Your task to perform on an android device: Go to Reddit.com Image 0: 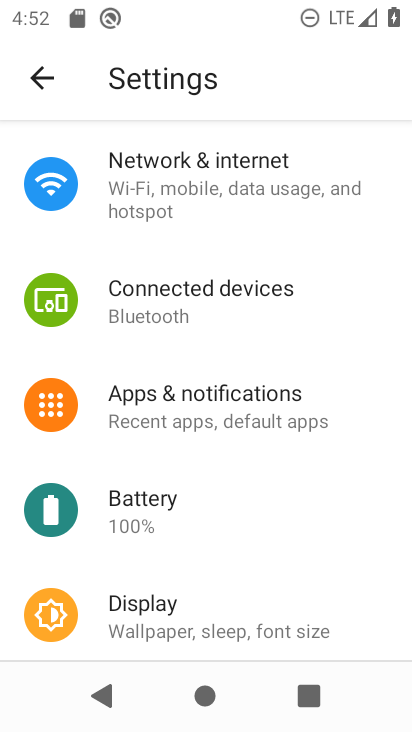
Step 0: press back button
Your task to perform on an android device: Go to Reddit.com Image 1: 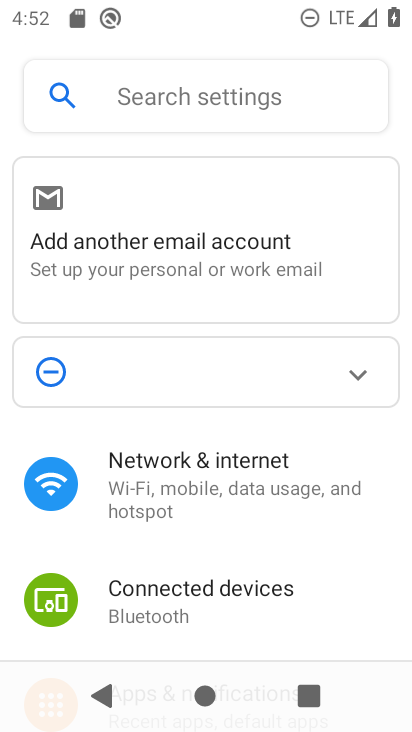
Step 1: press back button
Your task to perform on an android device: Go to Reddit.com Image 2: 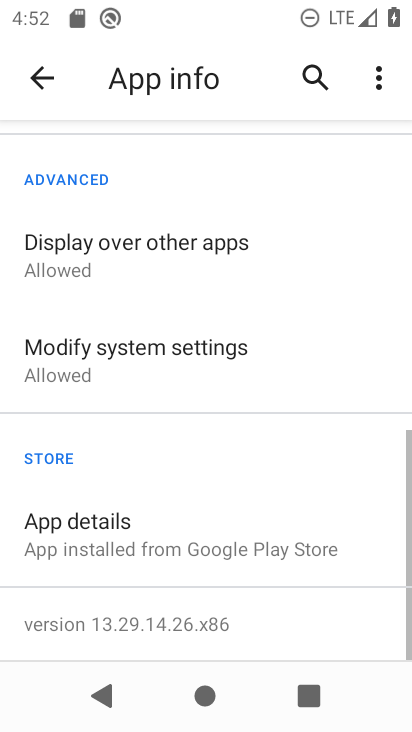
Step 2: press back button
Your task to perform on an android device: Go to Reddit.com Image 3: 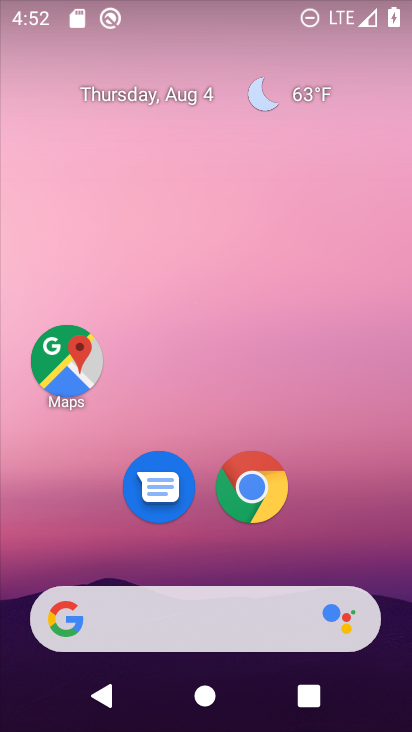
Step 3: click (267, 487)
Your task to perform on an android device: Go to Reddit.com Image 4: 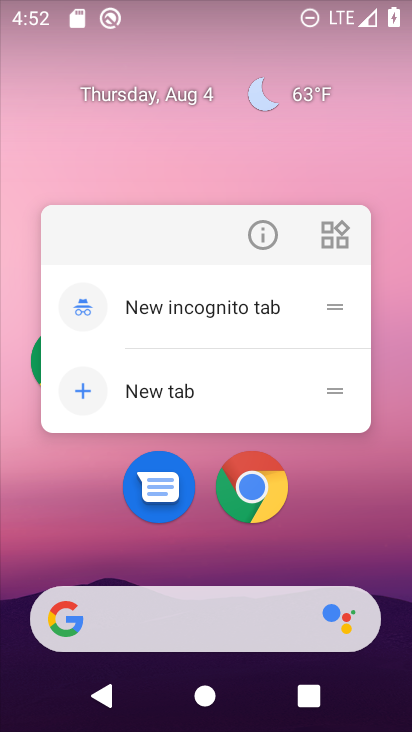
Step 4: click (255, 481)
Your task to perform on an android device: Go to Reddit.com Image 5: 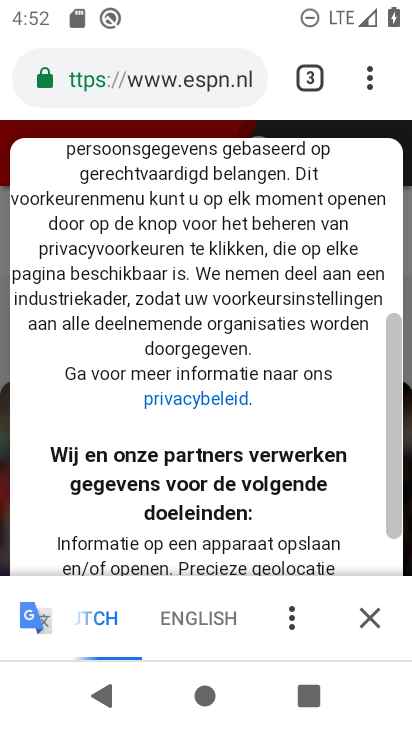
Step 5: click (311, 79)
Your task to perform on an android device: Go to Reddit.com Image 6: 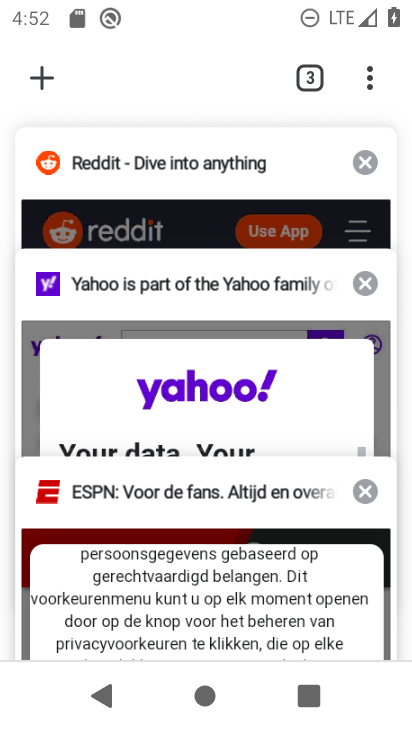
Step 6: click (108, 149)
Your task to perform on an android device: Go to Reddit.com Image 7: 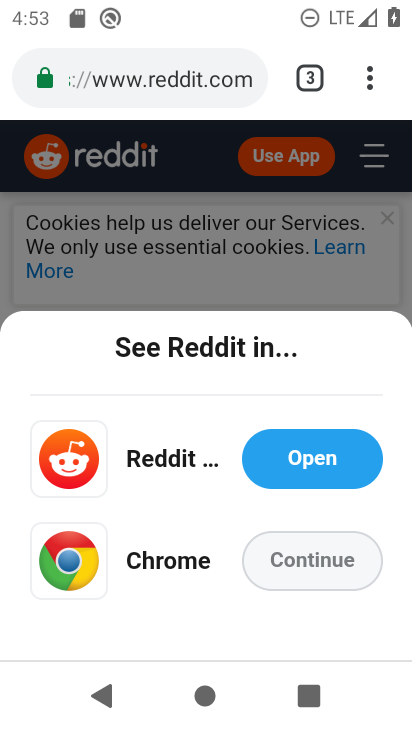
Step 7: task complete